Your task to perform on an android device: star an email in the gmail app Image 0: 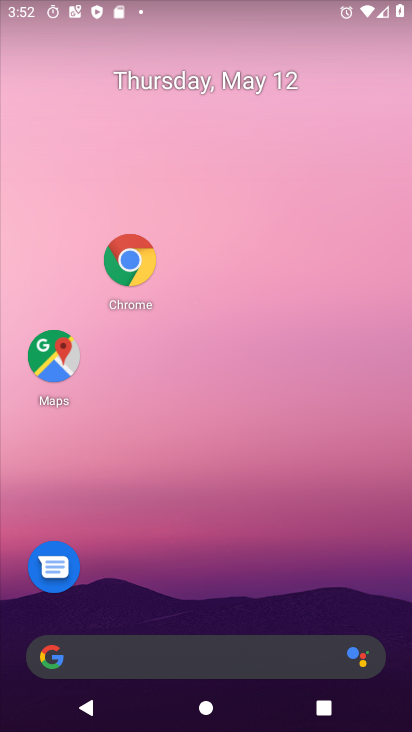
Step 0: drag from (205, 581) to (196, 199)
Your task to perform on an android device: star an email in the gmail app Image 1: 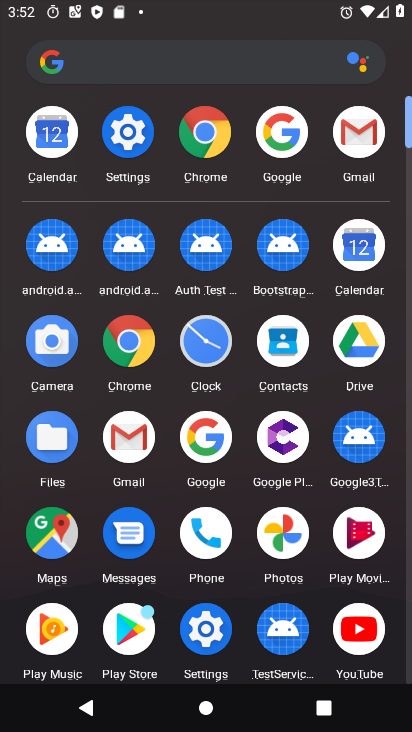
Step 1: click (349, 130)
Your task to perform on an android device: star an email in the gmail app Image 2: 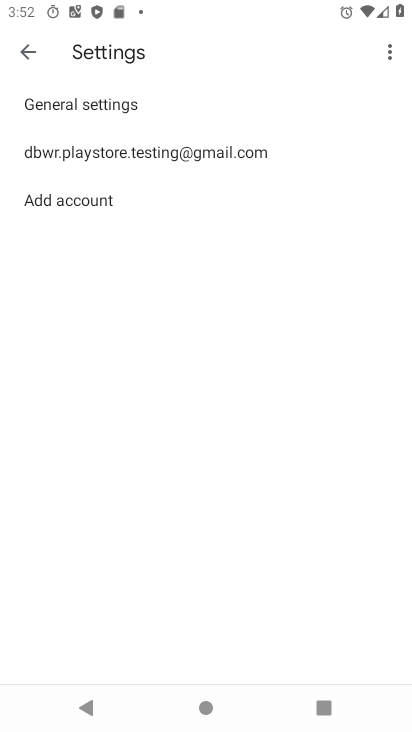
Step 2: click (19, 32)
Your task to perform on an android device: star an email in the gmail app Image 3: 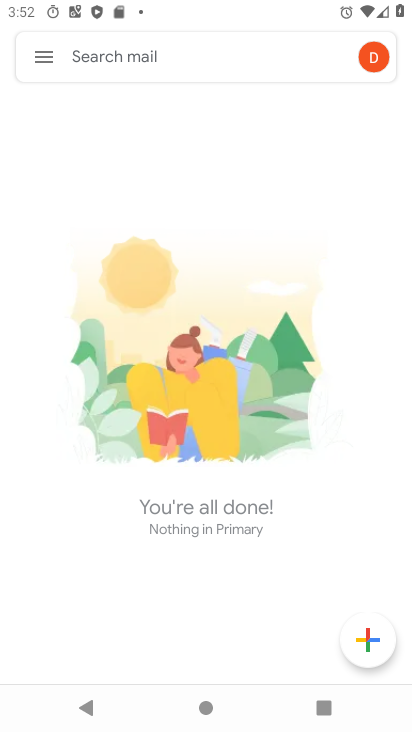
Step 3: click (35, 57)
Your task to perform on an android device: star an email in the gmail app Image 4: 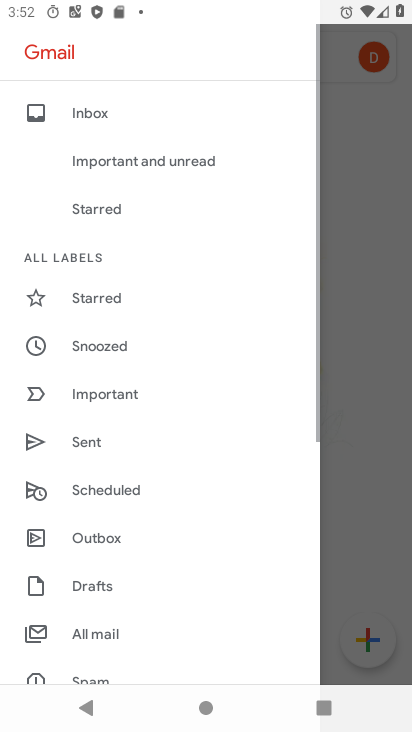
Step 4: click (87, 101)
Your task to perform on an android device: star an email in the gmail app Image 5: 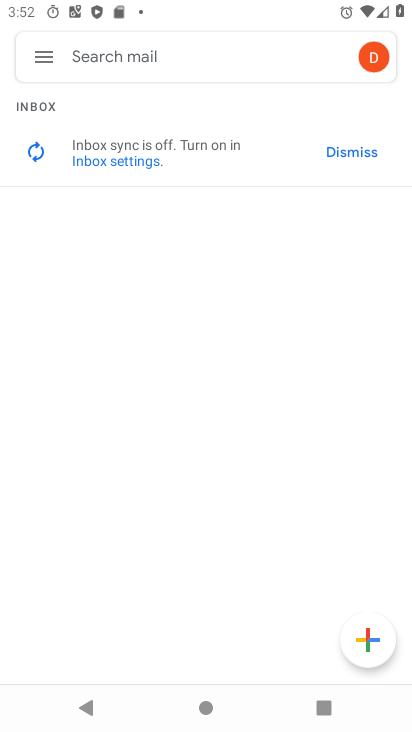
Step 5: task complete